Your task to perform on an android device: Do I have any events tomorrow? Image 0: 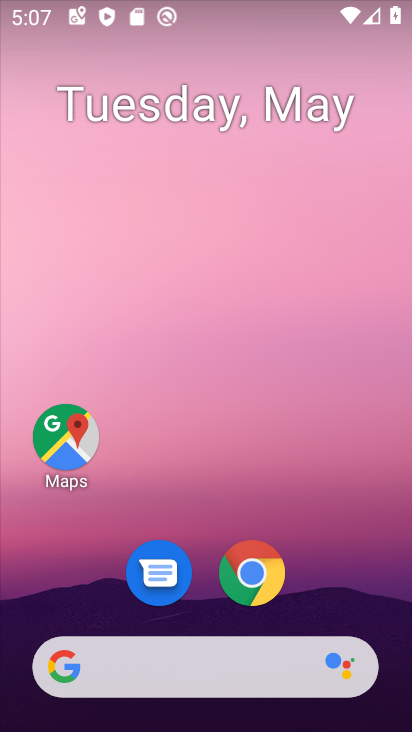
Step 0: drag from (210, 616) to (254, 100)
Your task to perform on an android device: Do I have any events tomorrow? Image 1: 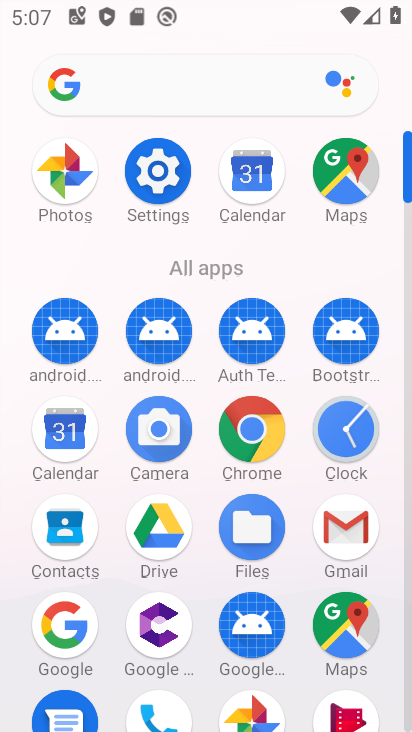
Step 1: click (57, 436)
Your task to perform on an android device: Do I have any events tomorrow? Image 2: 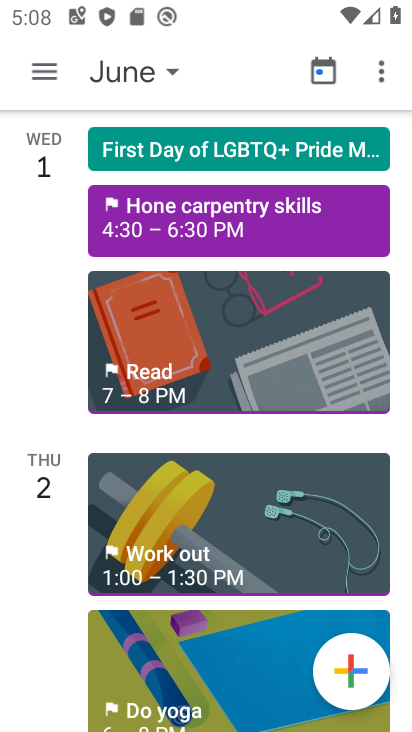
Step 2: click (164, 151)
Your task to perform on an android device: Do I have any events tomorrow? Image 3: 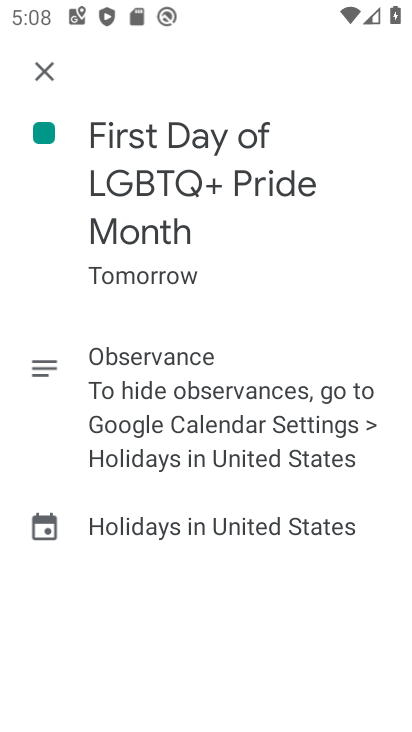
Step 3: task complete